Your task to perform on an android device: Open settings Image 0: 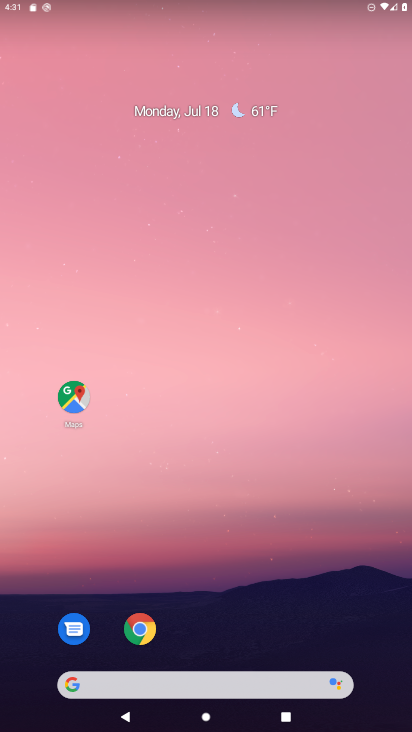
Step 0: drag from (186, 664) to (190, 341)
Your task to perform on an android device: Open settings Image 1: 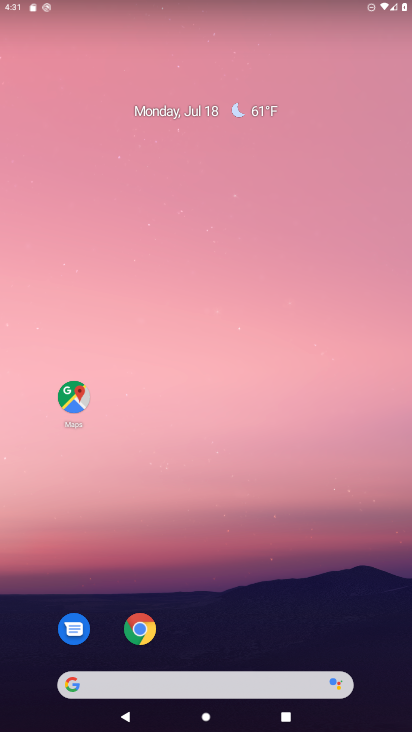
Step 1: drag from (217, 642) to (258, 170)
Your task to perform on an android device: Open settings Image 2: 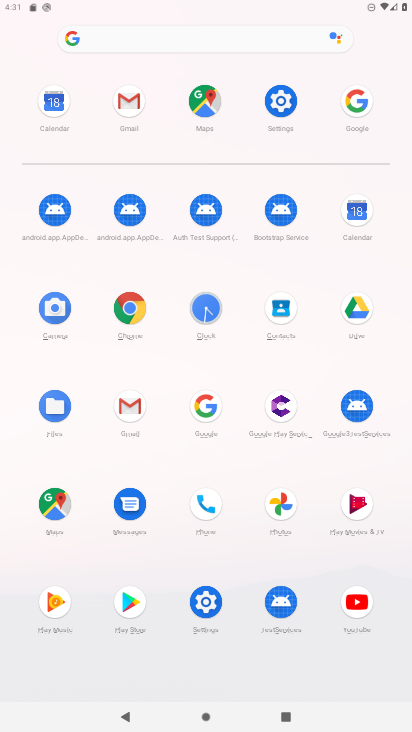
Step 2: click (282, 102)
Your task to perform on an android device: Open settings Image 3: 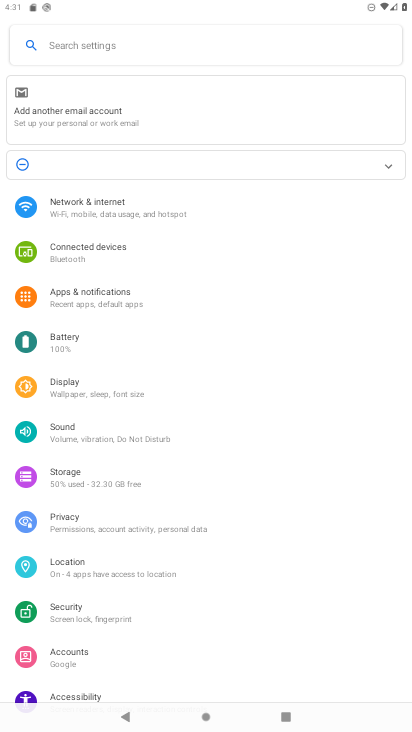
Step 3: task complete